Your task to perform on an android device: open wifi settings Image 0: 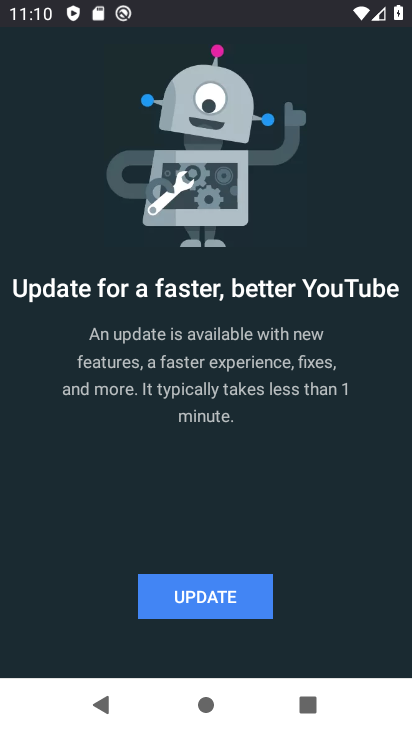
Step 0: press home button
Your task to perform on an android device: open wifi settings Image 1: 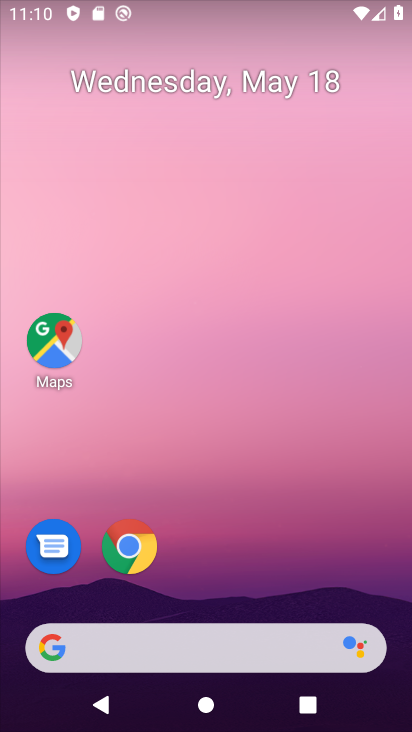
Step 1: drag from (262, 537) to (303, 43)
Your task to perform on an android device: open wifi settings Image 2: 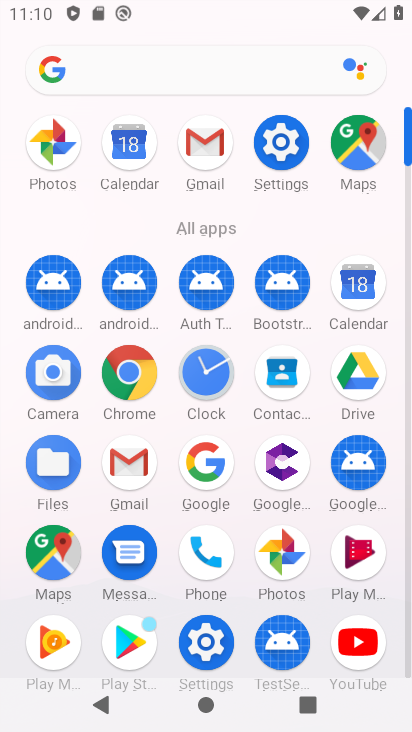
Step 2: click (281, 143)
Your task to perform on an android device: open wifi settings Image 3: 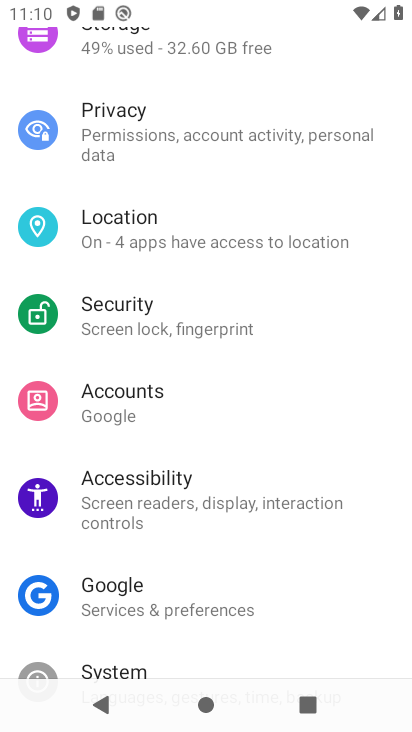
Step 3: drag from (181, 123) to (257, 653)
Your task to perform on an android device: open wifi settings Image 4: 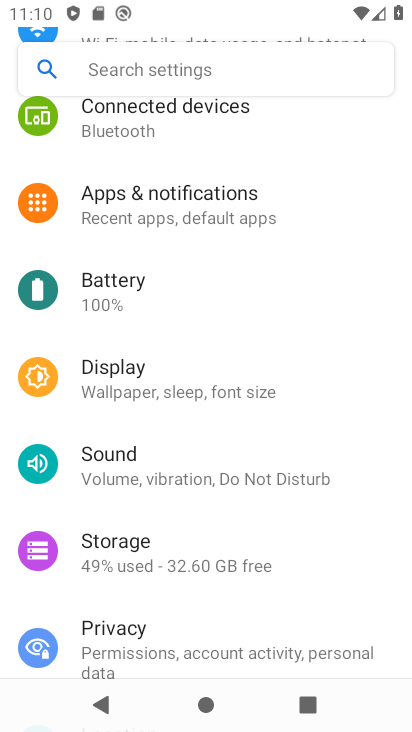
Step 4: drag from (113, 180) to (198, 599)
Your task to perform on an android device: open wifi settings Image 5: 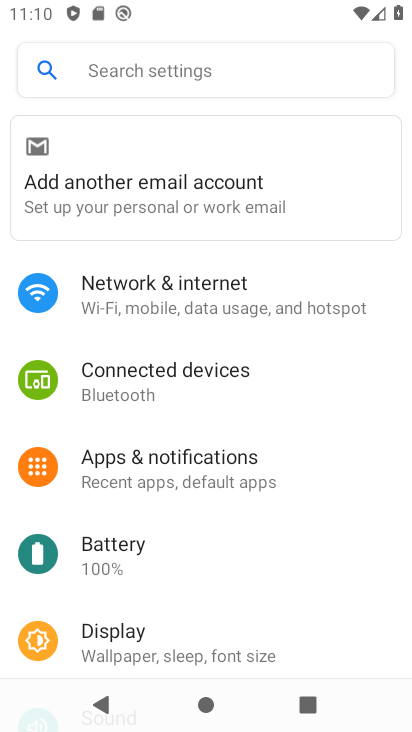
Step 5: click (168, 274)
Your task to perform on an android device: open wifi settings Image 6: 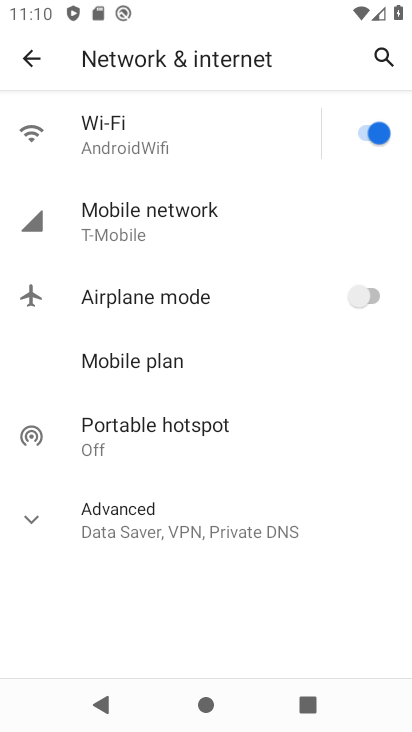
Step 6: click (137, 139)
Your task to perform on an android device: open wifi settings Image 7: 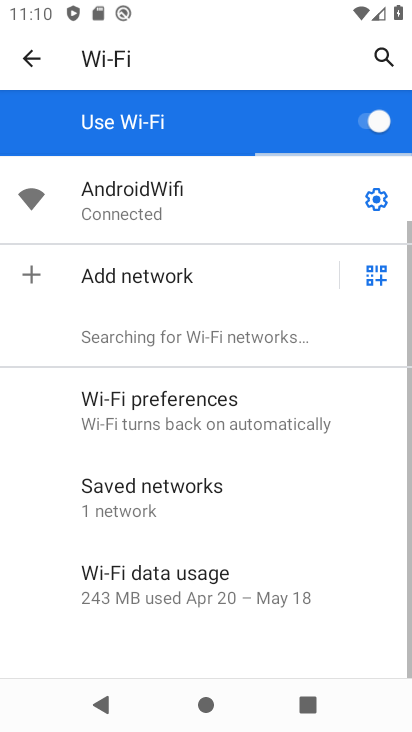
Step 7: click (374, 199)
Your task to perform on an android device: open wifi settings Image 8: 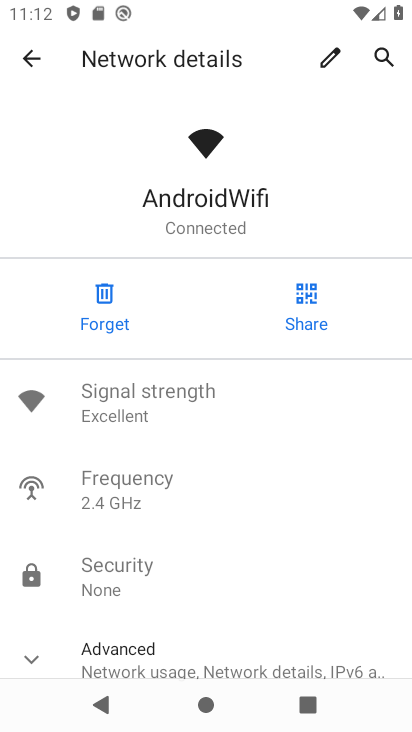
Step 8: task complete